Your task to perform on an android device: Open privacy settings Image 0: 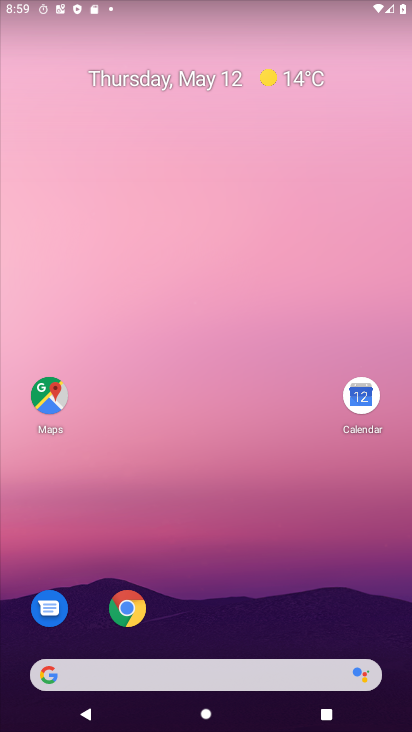
Step 0: drag from (312, 609) to (186, 244)
Your task to perform on an android device: Open privacy settings Image 1: 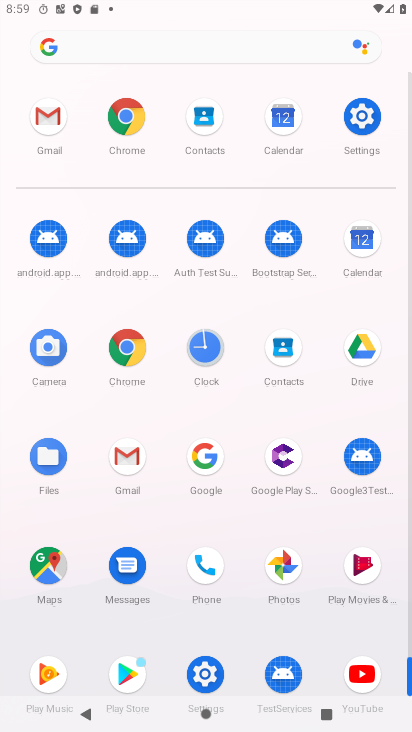
Step 1: click (354, 106)
Your task to perform on an android device: Open privacy settings Image 2: 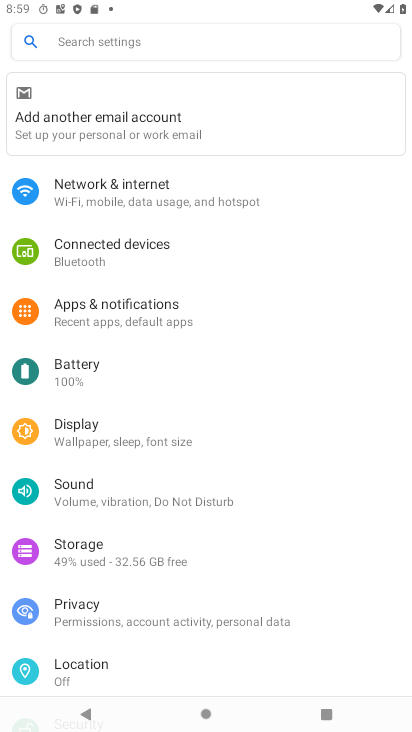
Step 2: task complete